Your task to perform on an android device: Go to Google Image 0: 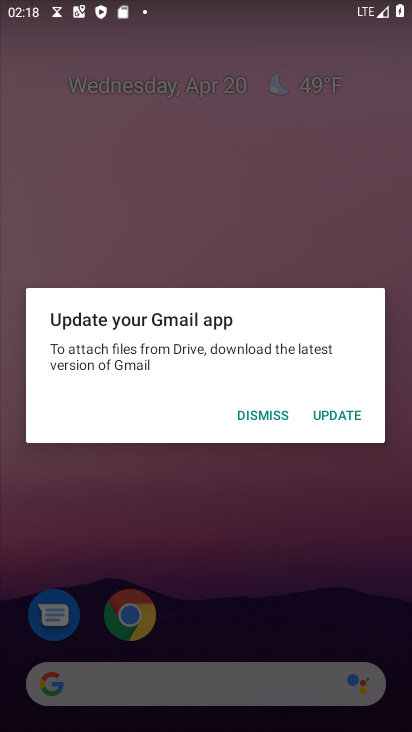
Step 0: click (260, 414)
Your task to perform on an android device: Go to Google Image 1: 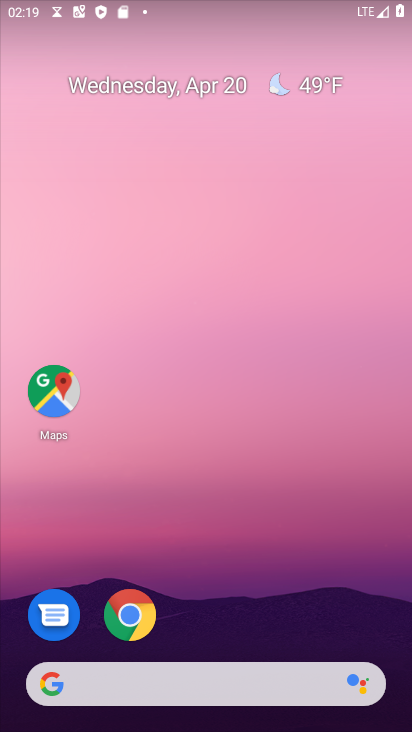
Step 1: drag from (220, 633) to (270, 213)
Your task to perform on an android device: Go to Google Image 2: 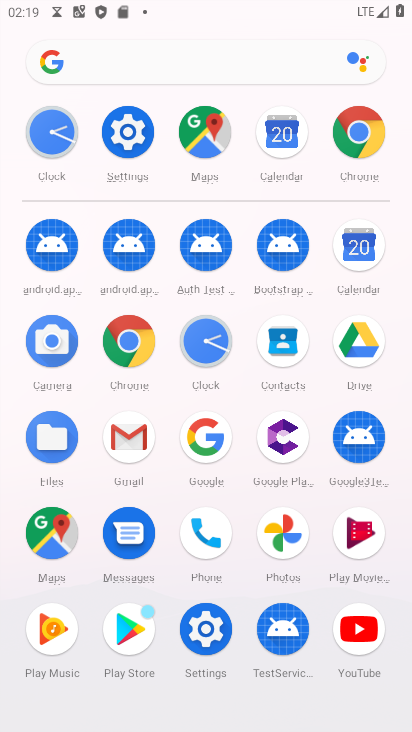
Step 2: click (215, 453)
Your task to perform on an android device: Go to Google Image 3: 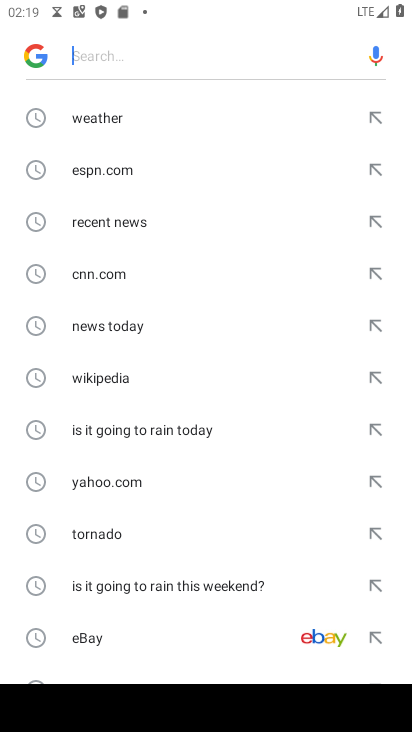
Step 3: task complete